Your task to perform on an android device: Open Maps and search for coffee Image 0: 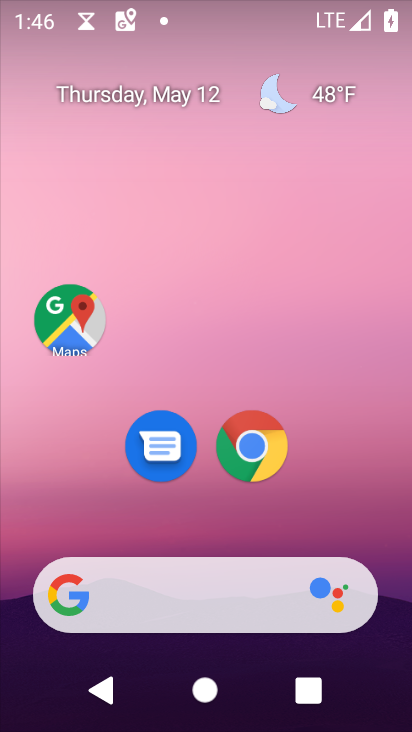
Step 0: click (72, 313)
Your task to perform on an android device: Open Maps and search for coffee Image 1: 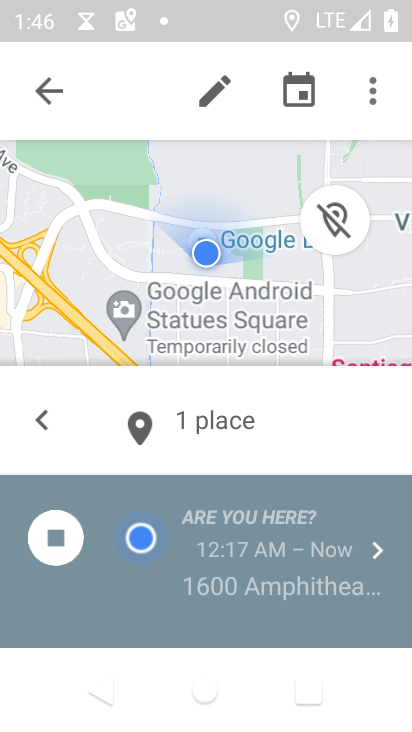
Step 1: click (48, 92)
Your task to perform on an android device: Open Maps and search for coffee Image 2: 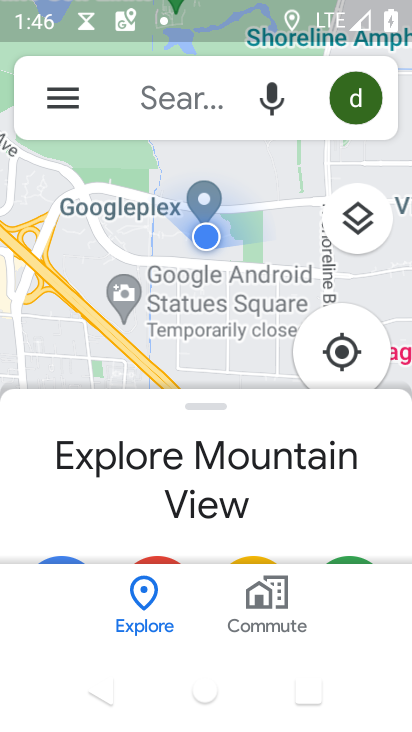
Step 2: click (173, 101)
Your task to perform on an android device: Open Maps and search for coffee Image 3: 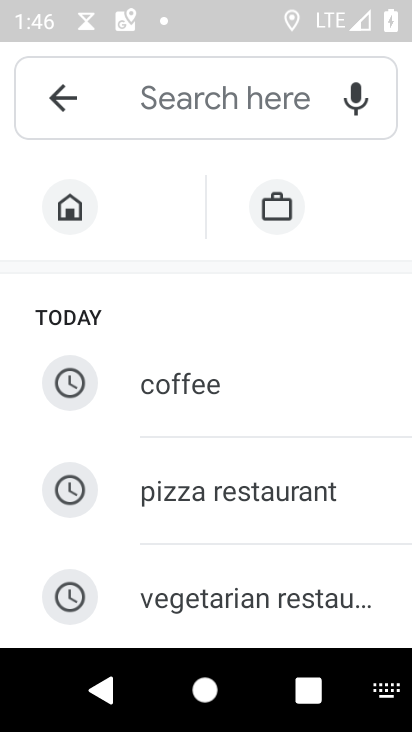
Step 3: click (201, 391)
Your task to perform on an android device: Open Maps and search for coffee Image 4: 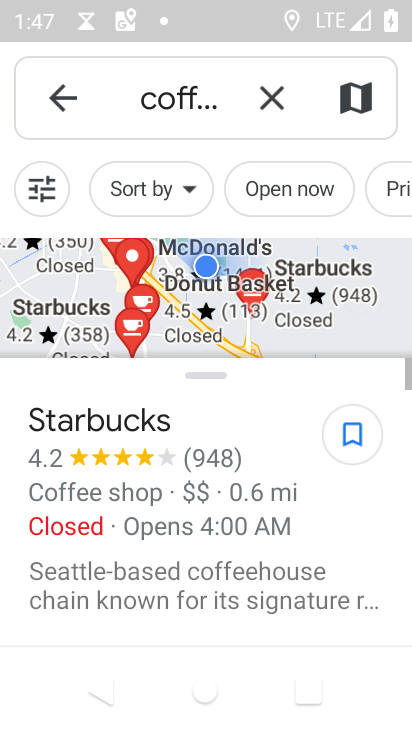
Step 4: task complete